Your task to perform on an android device: turn off location history Image 0: 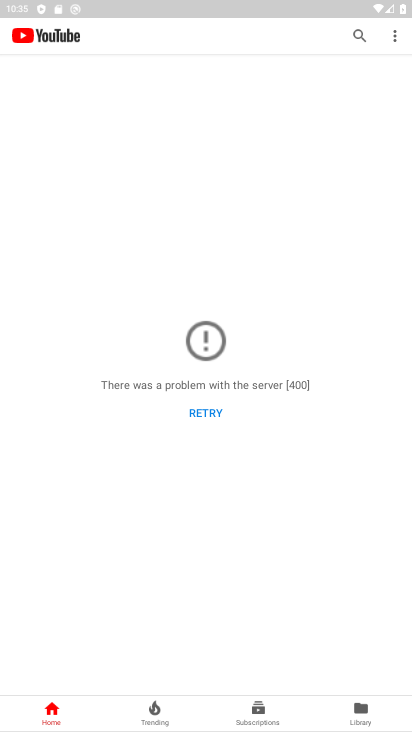
Step 0: press back button
Your task to perform on an android device: turn off location history Image 1: 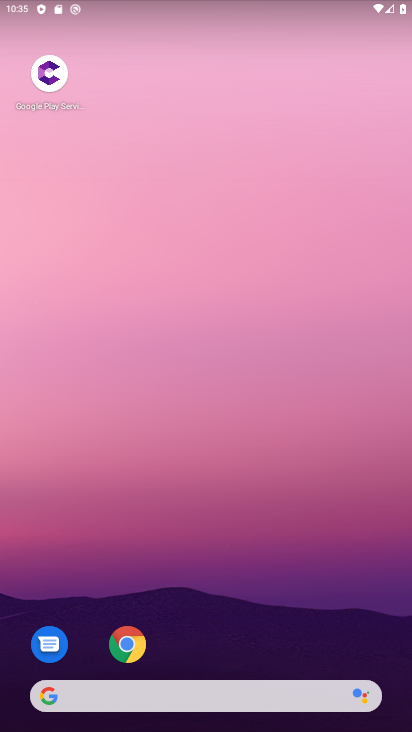
Step 1: drag from (29, 609) to (224, 207)
Your task to perform on an android device: turn off location history Image 2: 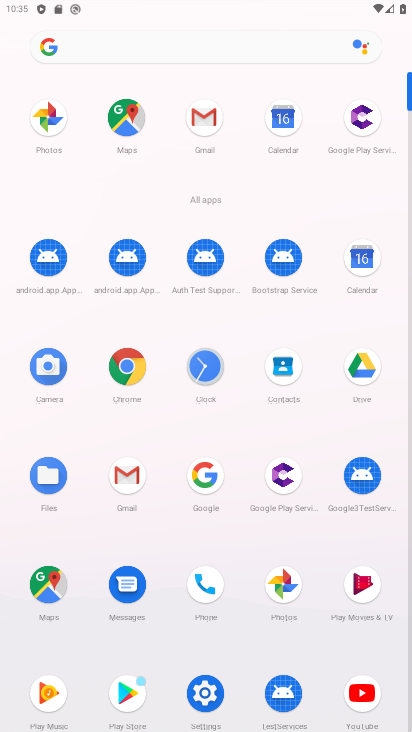
Step 2: click (215, 691)
Your task to perform on an android device: turn off location history Image 3: 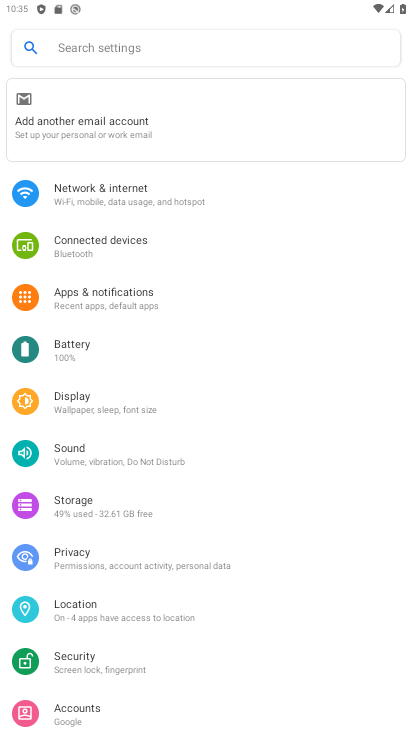
Step 3: click (67, 611)
Your task to perform on an android device: turn off location history Image 4: 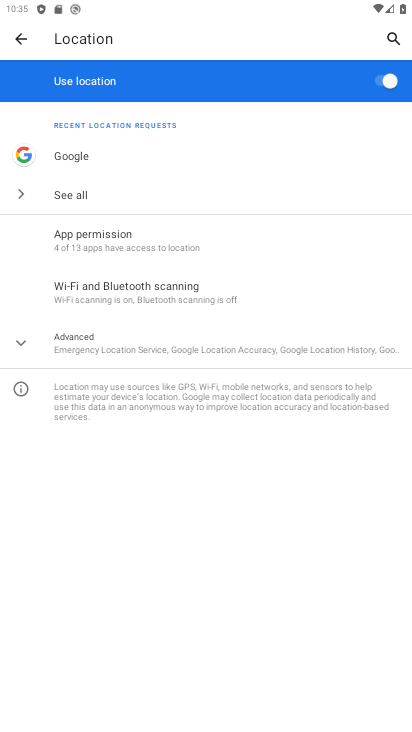
Step 4: click (385, 89)
Your task to perform on an android device: turn off location history Image 5: 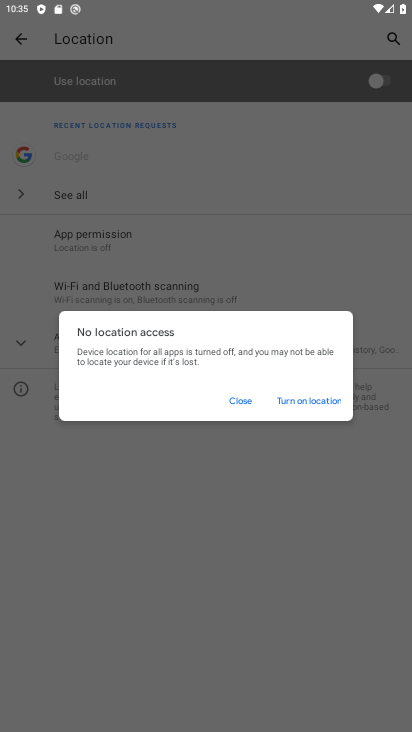
Step 5: task complete